Your task to perform on an android device: Open Yahoo.com Image 0: 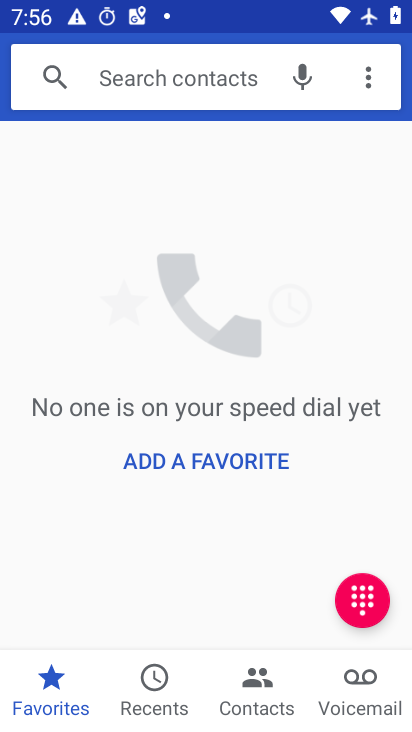
Step 0: press home button
Your task to perform on an android device: Open Yahoo.com Image 1: 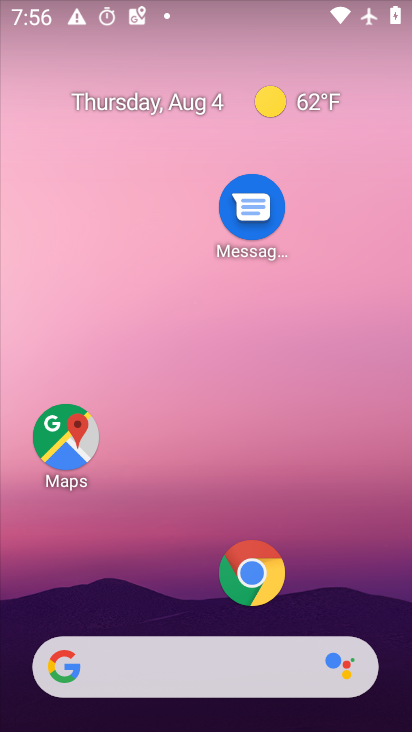
Step 1: click (71, 674)
Your task to perform on an android device: Open Yahoo.com Image 2: 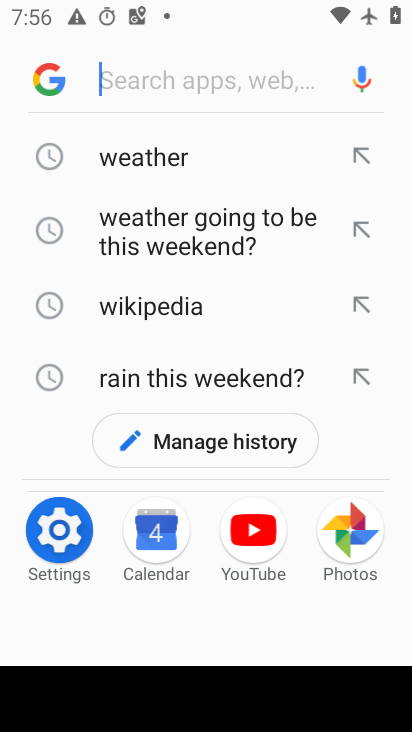
Step 2: type "Yahoo.com"
Your task to perform on an android device: Open Yahoo.com Image 3: 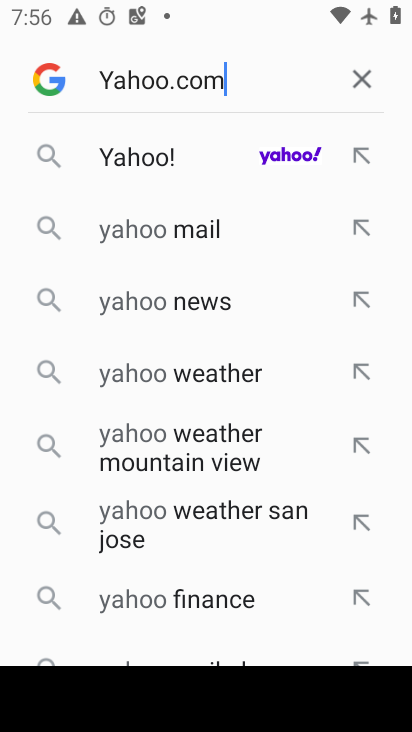
Step 3: press enter
Your task to perform on an android device: Open Yahoo.com Image 4: 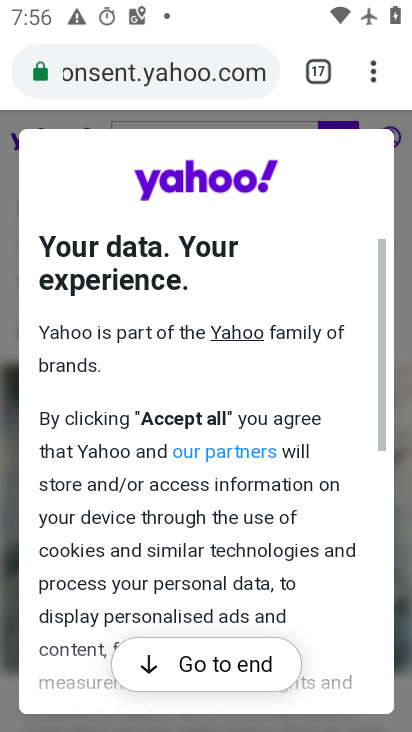
Step 4: drag from (306, 596) to (256, 235)
Your task to perform on an android device: Open Yahoo.com Image 5: 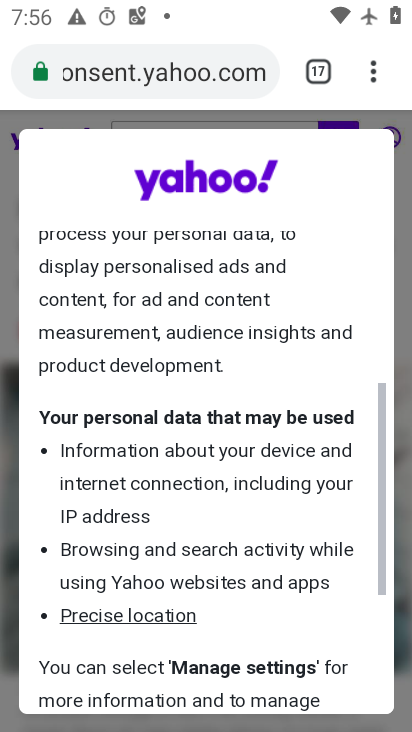
Step 5: drag from (316, 599) to (305, 213)
Your task to perform on an android device: Open Yahoo.com Image 6: 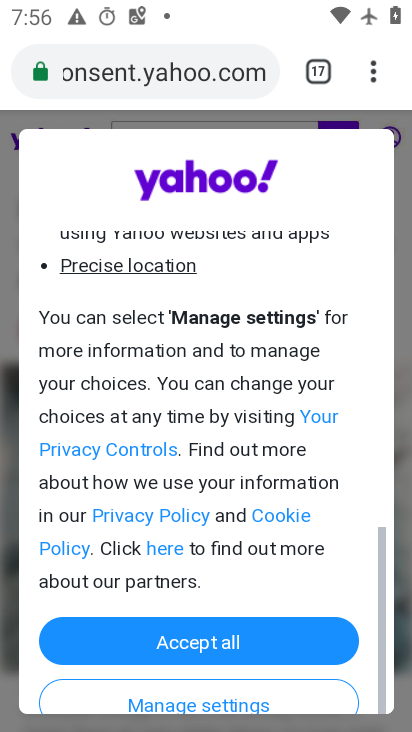
Step 6: click (166, 639)
Your task to perform on an android device: Open Yahoo.com Image 7: 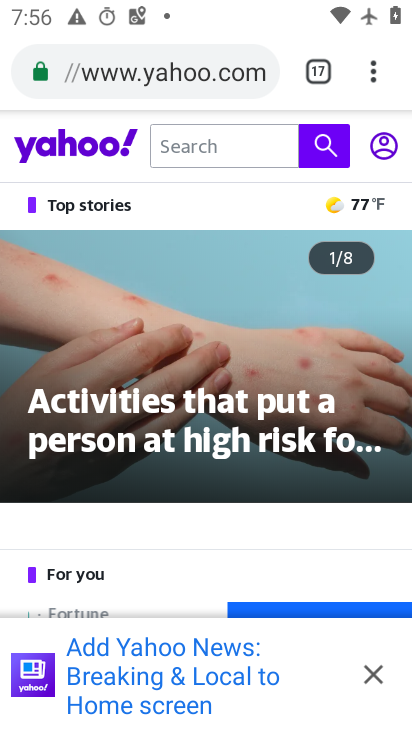
Step 7: task complete